Your task to perform on an android device: turn on translation in the chrome app Image 0: 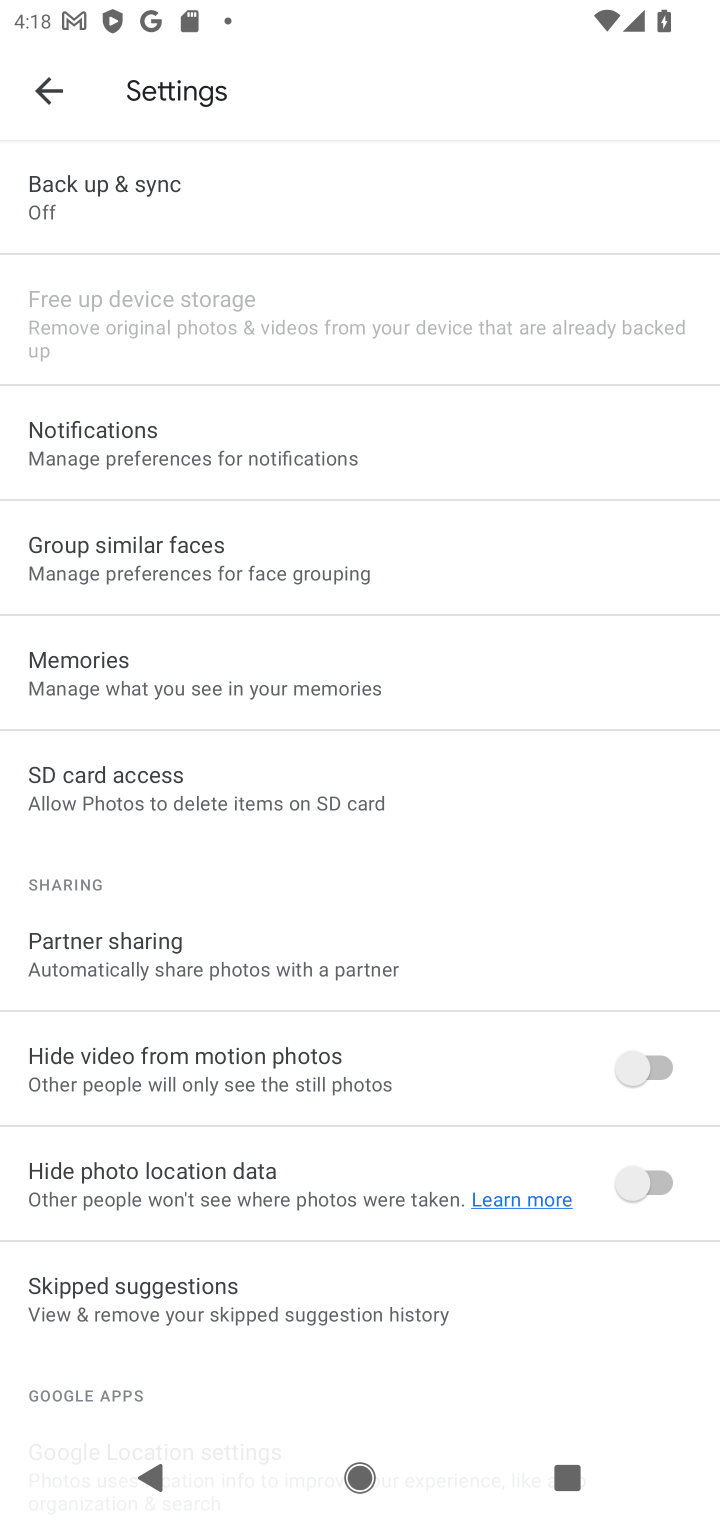
Step 0: press home button
Your task to perform on an android device: turn on translation in the chrome app Image 1: 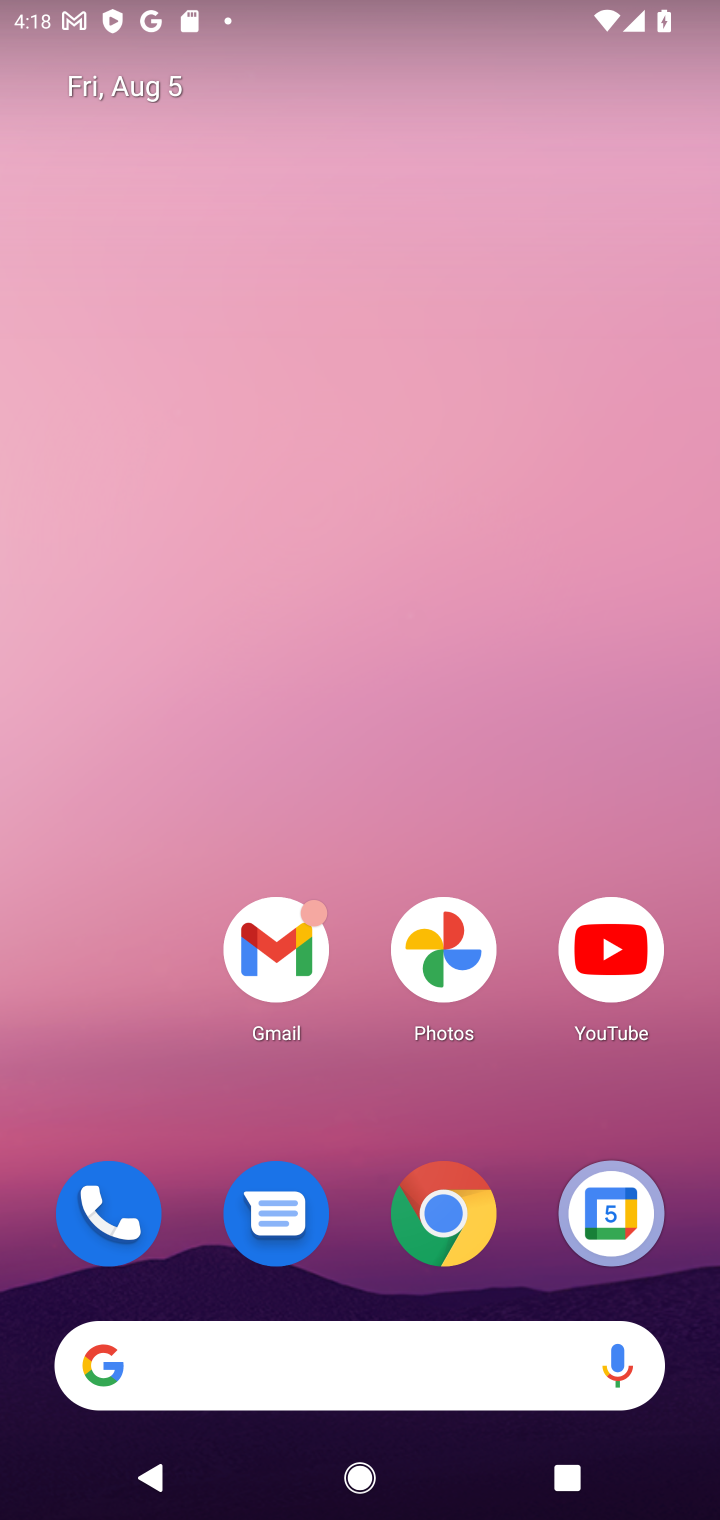
Step 1: click (444, 1247)
Your task to perform on an android device: turn on translation in the chrome app Image 2: 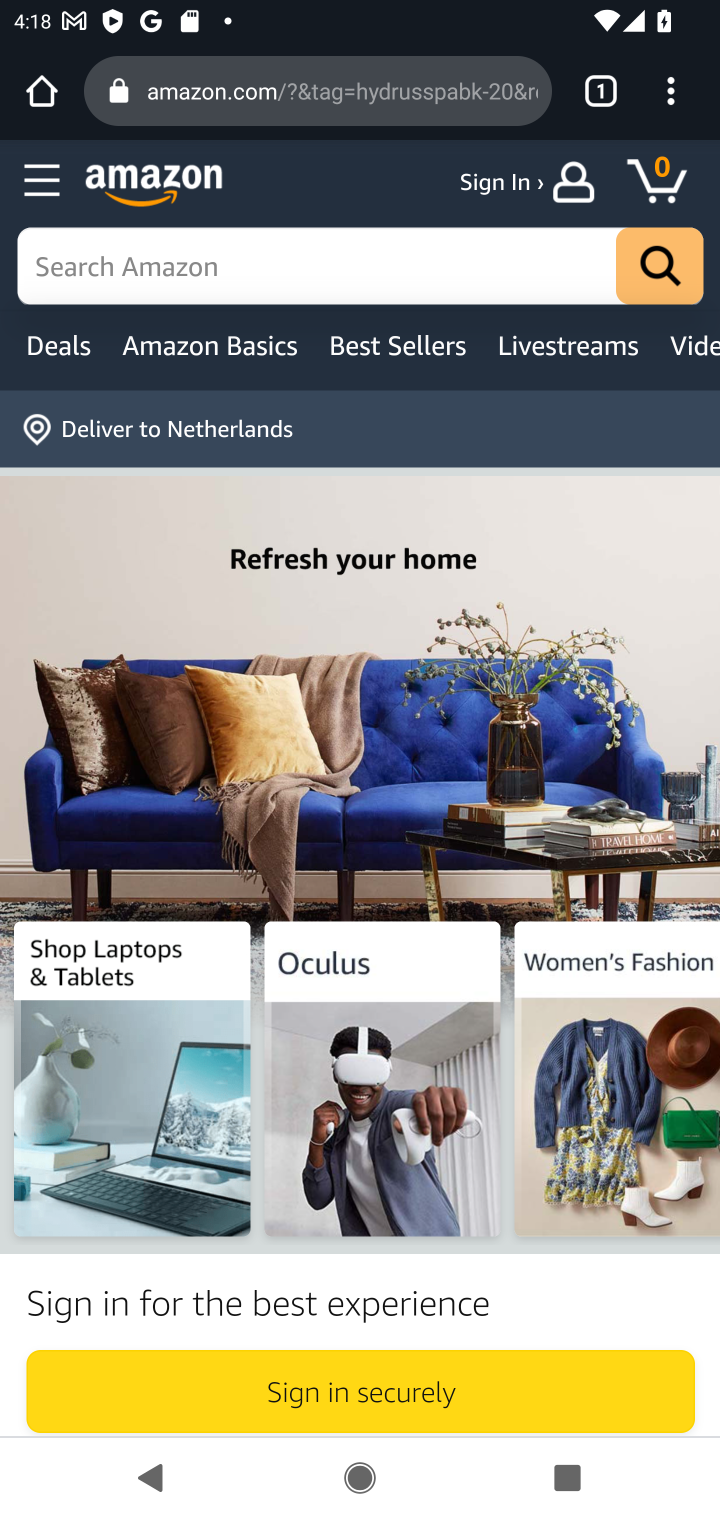
Step 2: click (645, 115)
Your task to perform on an android device: turn on translation in the chrome app Image 3: 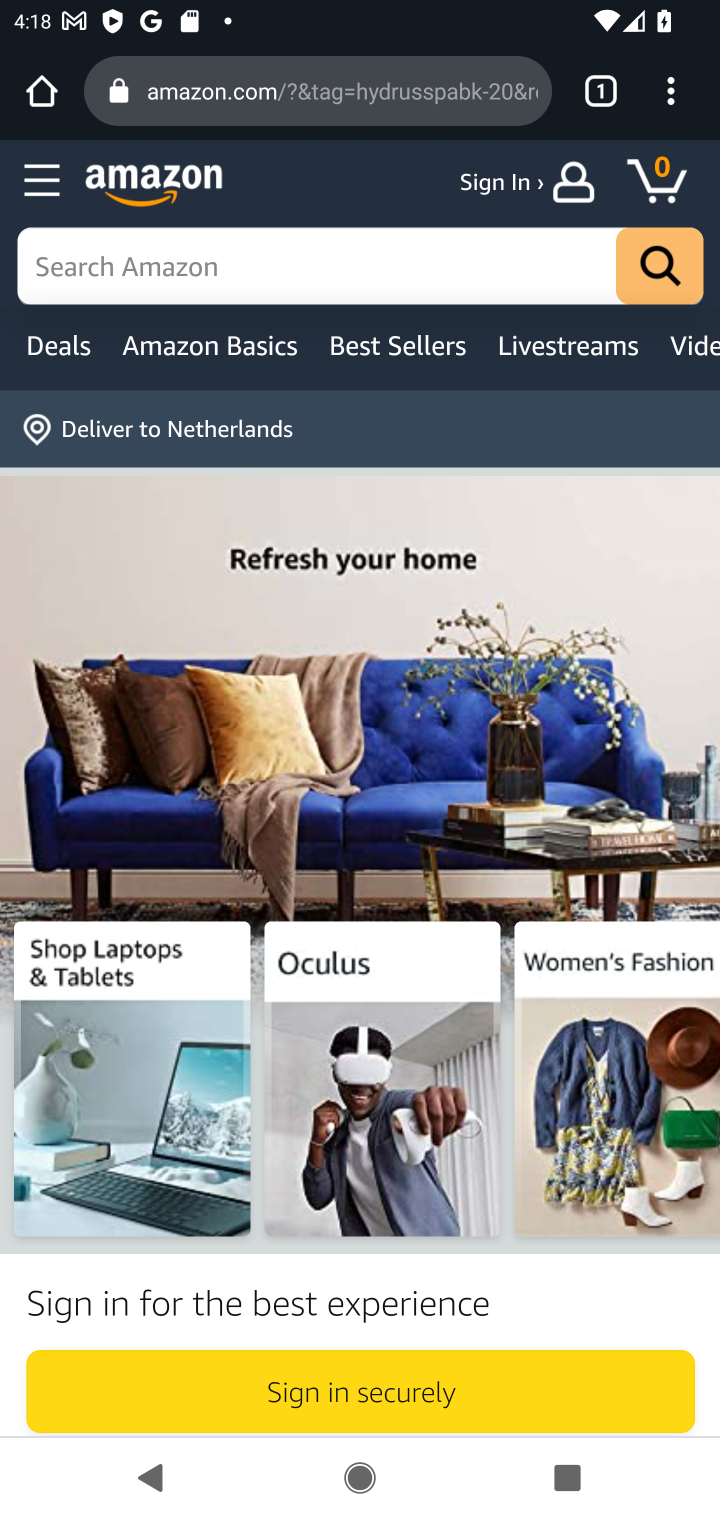
Step 3: click (665, 108)
Your task to perform on an android device: turn on translation in the chrome app Image 4: 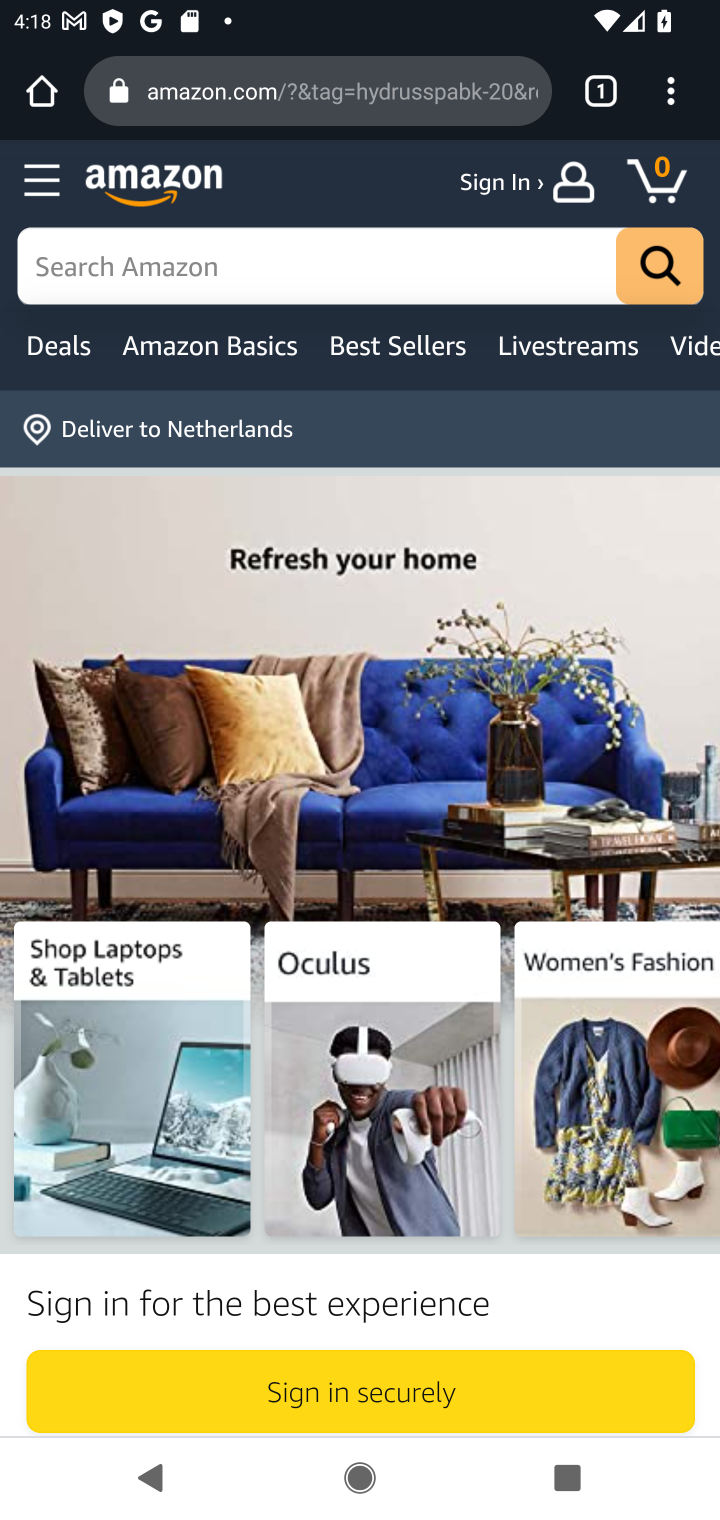
Step 4: task complete